Your task to perform on an android device: turn off airplane mode Image 0: 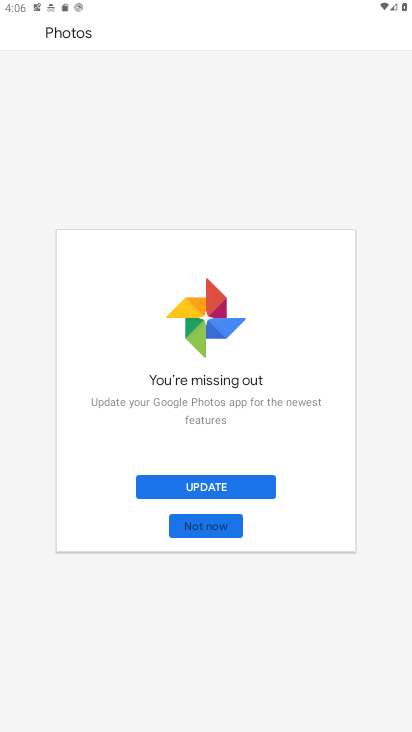
Step 0: press home button
Your task to perform on an android device: turn off airplane mode Image 1: 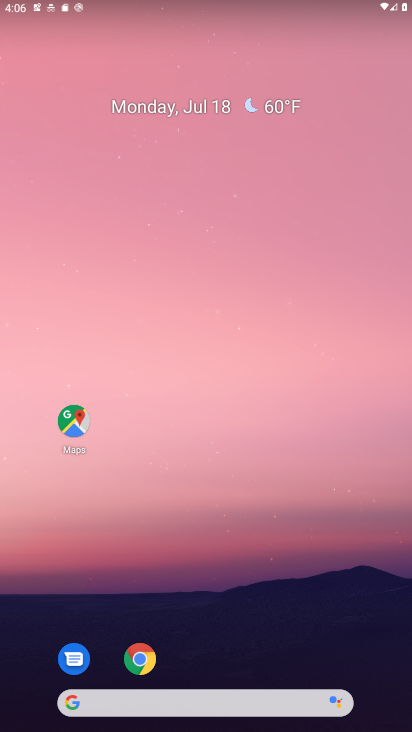
Step 1: drag from (211, 703) to (188, 0)
Your task to perform on an android device: turn off airplane mode Image 2: 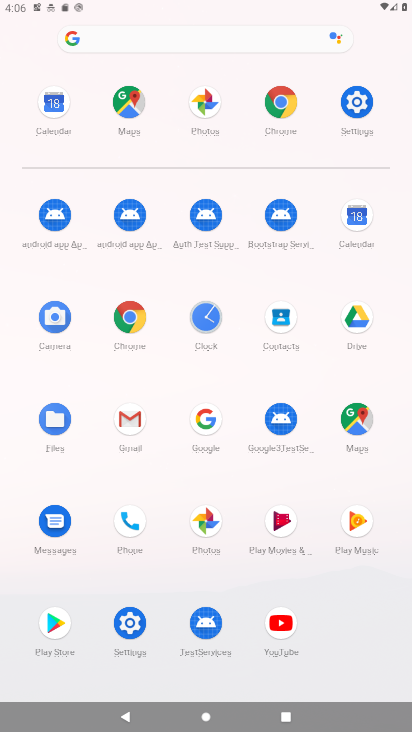
Step 2: click (354, 104)
Your task to perform on an android device: turn off airplane mode Image 3: 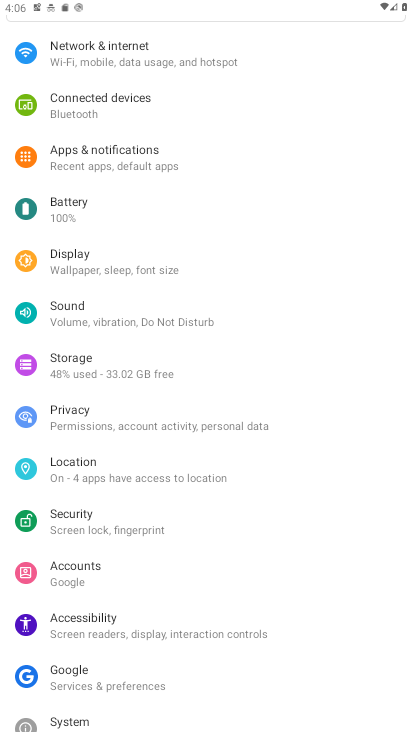
Step 3: drag from (134, 235) to (188, 628)
Your task to perform on an android device: turn off airplane mode Image 4: 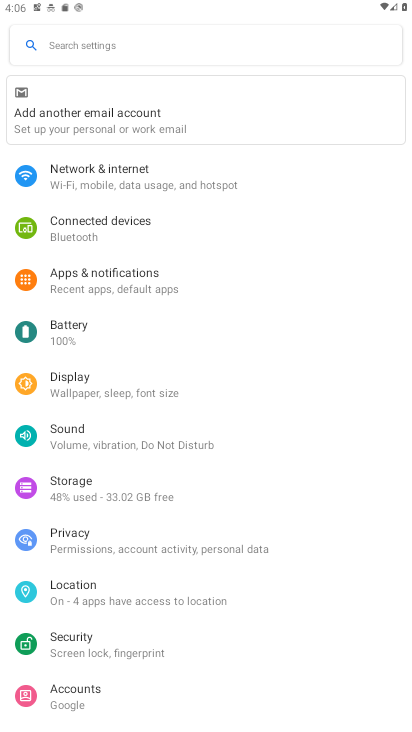
Step 4: click (155, 179)
Your task to perform on an android device: turn off airplane mode Image 5: 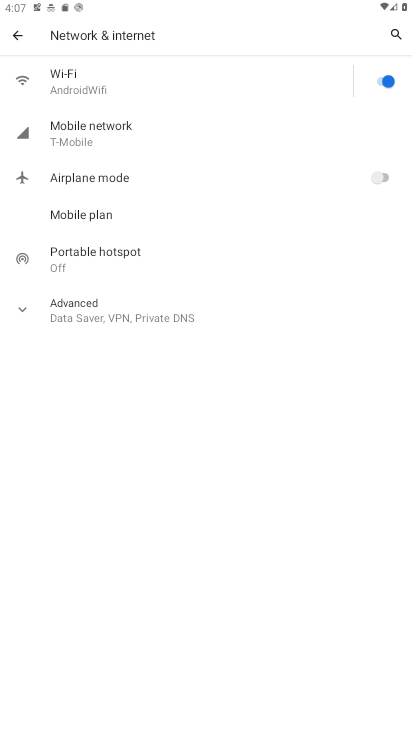
Step 5: task complete